Your task to perform on an android device: Open Youtube and go to the subscriptions tab Image 0: 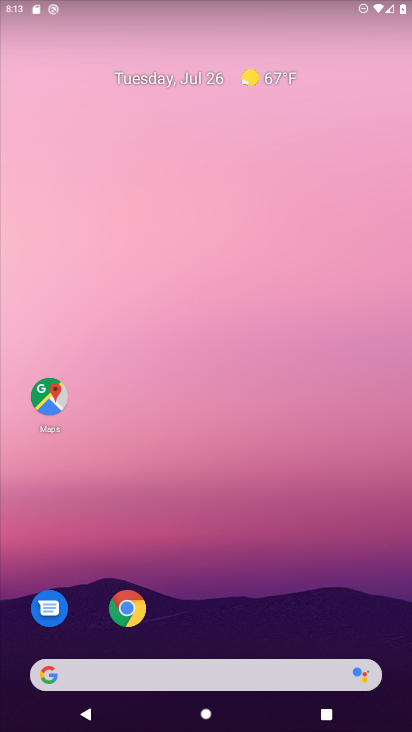
Step 0: drag from (204, 641) to (292, 4)
Your task to perform on an android device: Open Youtube and go to the subscriptions tab Image 1: 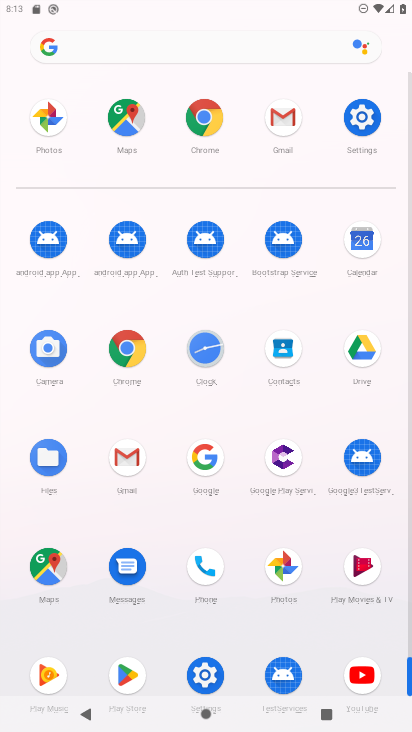
Step 1: click (353, 671)
Your task to perform on an android device: Open Youtube and go to the subscriptions tab Image 2: 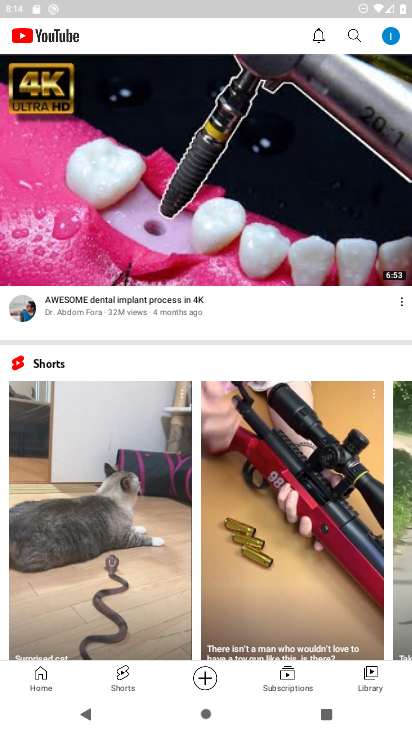
Step 2: click (285, 684)
Your task to perform on an android device: Open Youtube and go to the subscriptions tab Image 3: 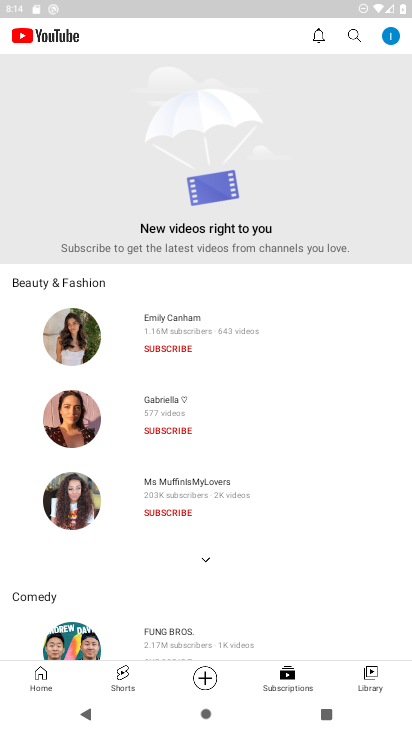
Step 3: task complete